Your task to perform on an android device: allow notifications from all sites in the chrome app Image 0: 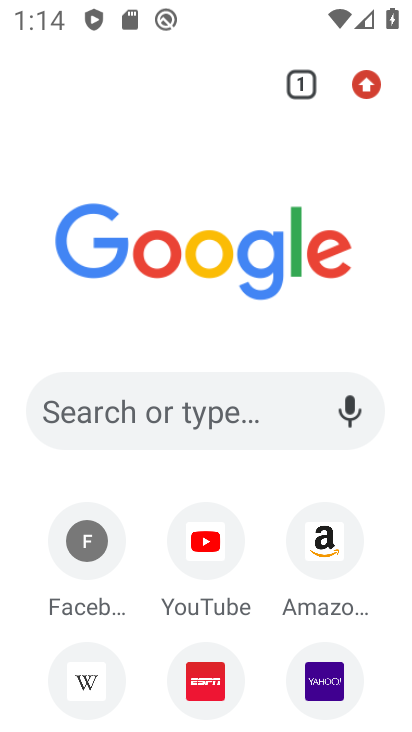
Step 0: press home button
Your task to perform on an android device: allow notifications from all sites in the chrome app Image 1: 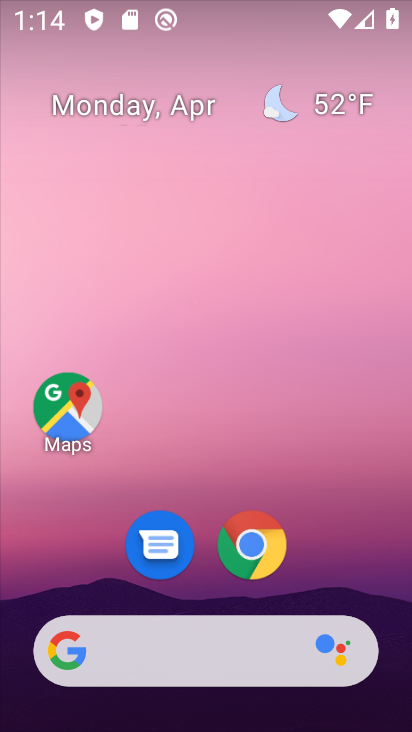
Step 1: click (248, 537)
Your task to perform on an android device: allow notifications from all sites in the chrome app Image 2: 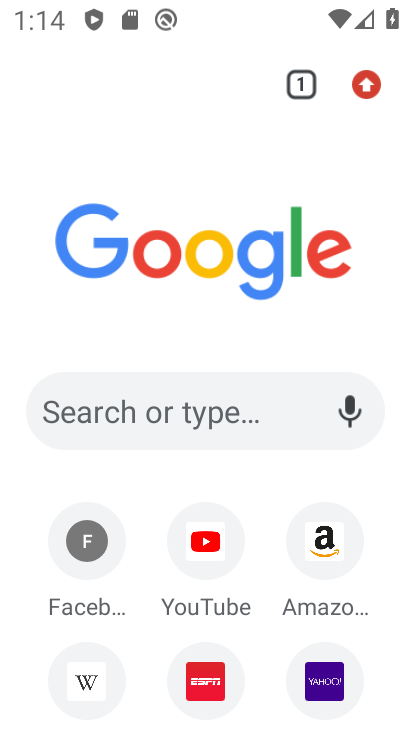
Step 2: click (367, 92)
Your task to perform on an android device: allow notifications from all sites in the chrome app Image 3: 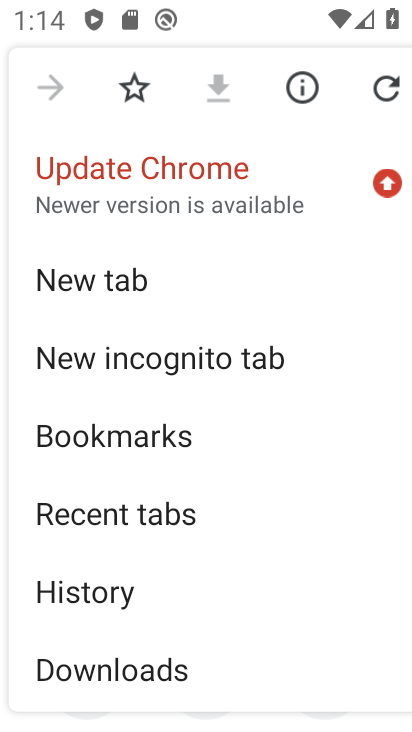
Step 3: drag from (116, 684) to (111, 316)
Your task to perform on an android device: allow notifications from all sites in the chrome app Image 4: 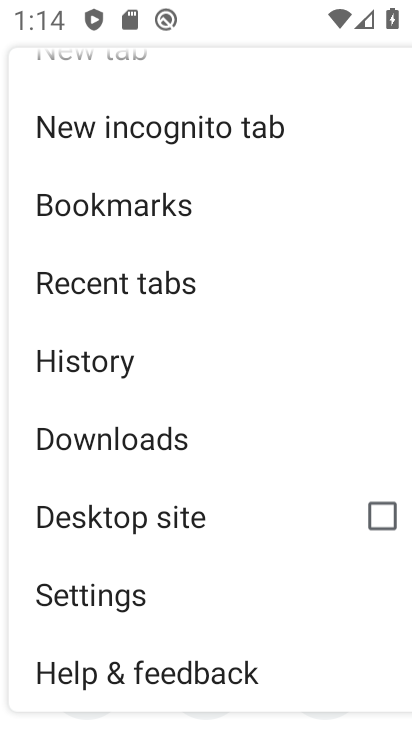
Step 4: click (105, 593)
Your task to perform on an android device: allow notifications from all sites in the chrome app Image 5: 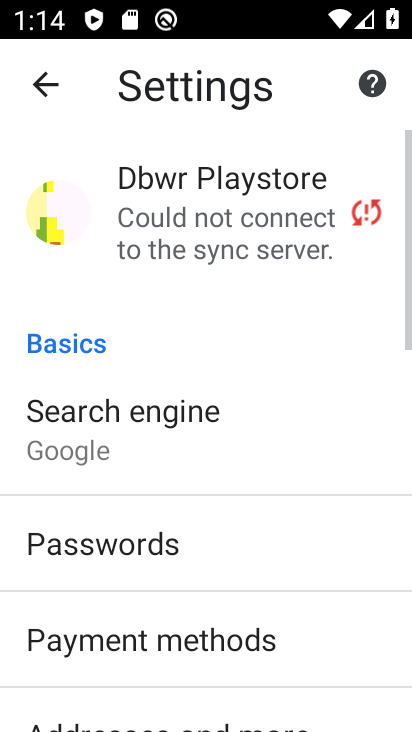
Step 5: drag from (142, 705) to (189, 224)
Your task to perform on an android device: allow notifications from all sites in the chrome app Image 6: 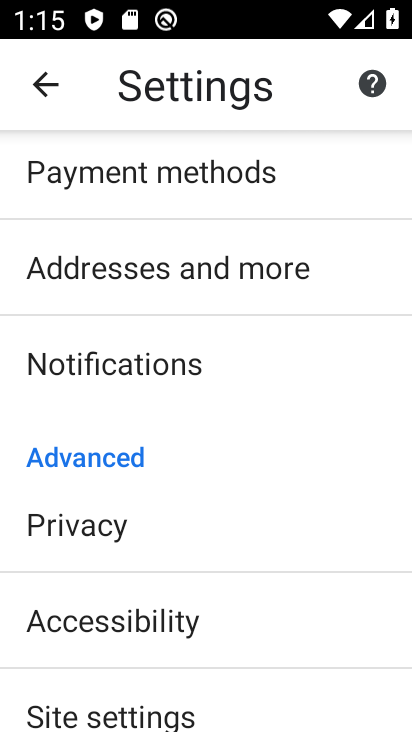
Step 6: drag from (141, 646) to (146, 281)
Your task to perform on an android device: allow notifications from all sites in the chrome app Image 7: 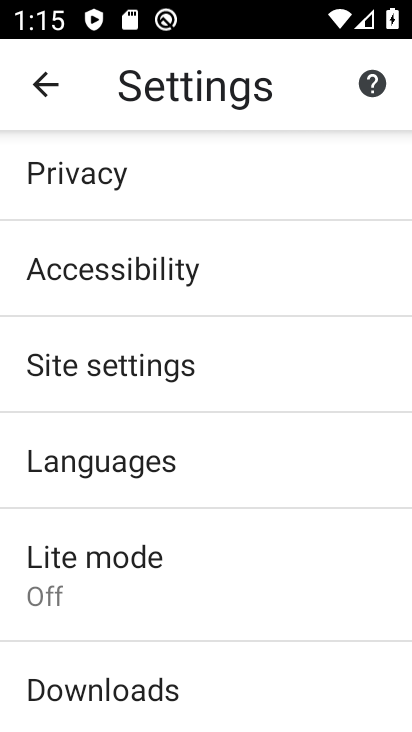
Step 7: click (110, 368)
Your task to perform on an android device: allow notifications from all sites in the chrome app Image 8: 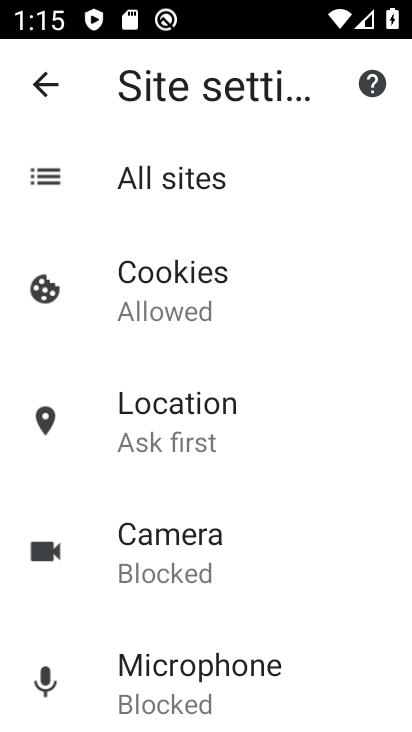
Step 8: drag from (169, 684) to (158, 263)
Your task to perform on an android device: allow notifications from all sites in the chrome app Image 9: 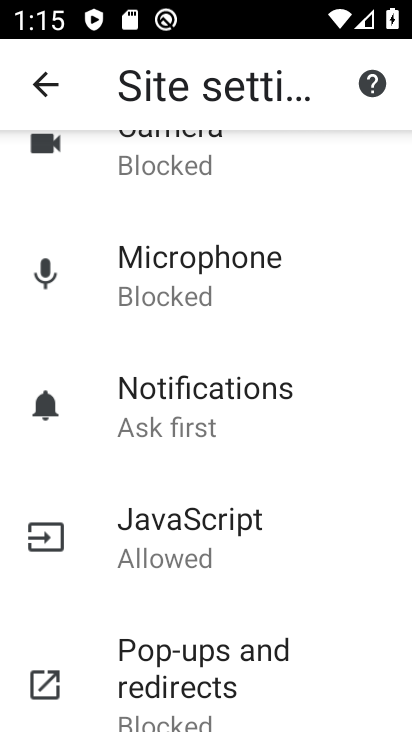
Step 9: click (162, 392)
Your task to perform on an android device: allow notifications from all sites in the chrome app Image 10: 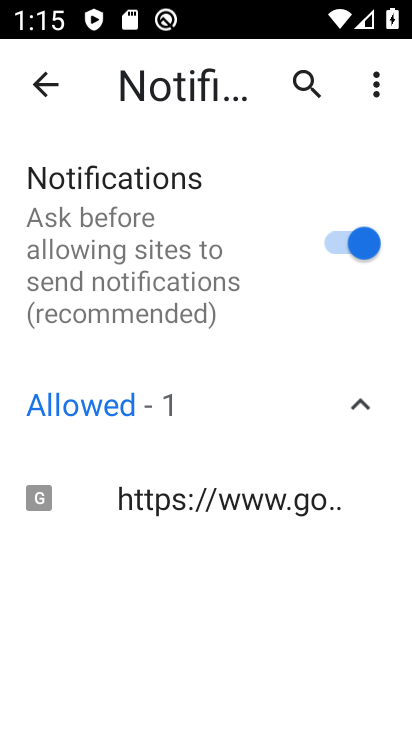
Step 10: task complete